Your task to perform on an android device: Turn off the flashlight Image 0: 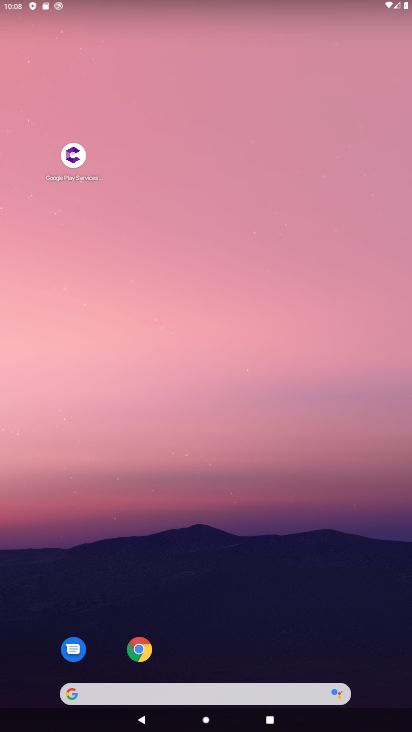
Step 0: drag from (352, 636) to (181, 22)
Your task to perform on an android device: Turn off the flashlight Image 1: 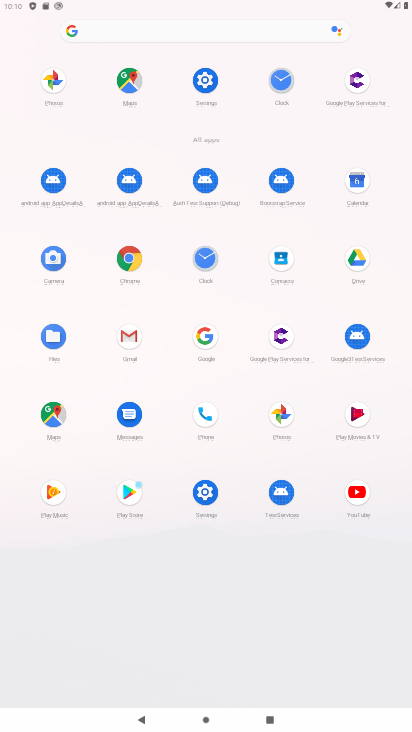
Step 1: click (208, 84)
Your task to perform on an android device: Turn off the flashlight Image 2: 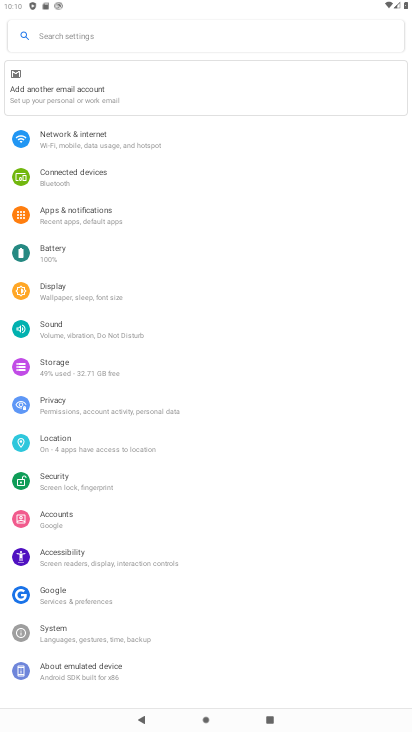
Step 2: task complete